Your task to perform on an android device: check out phone information Image 0: 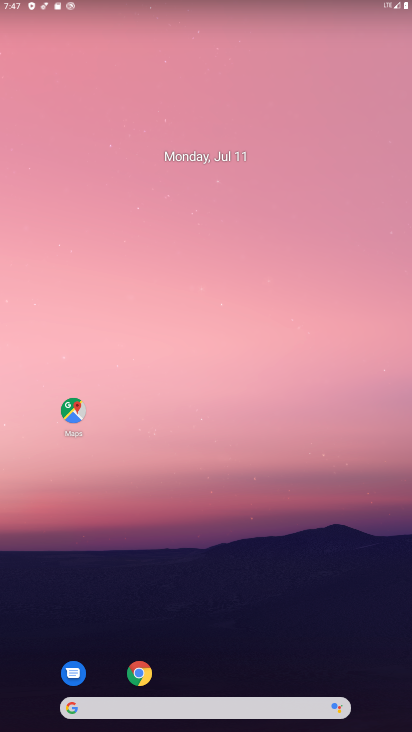
Step 0: drag from (217, 701) to (202, 420)
Your task to perform on an android device: check out phone information Image 1: 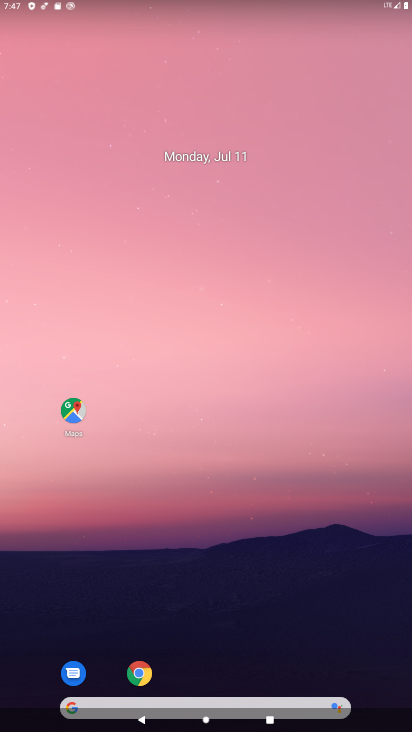
Step 1: drag from (214, 682) to (202, 336)
Your task to perform on an android device: check out phone information Image 2: 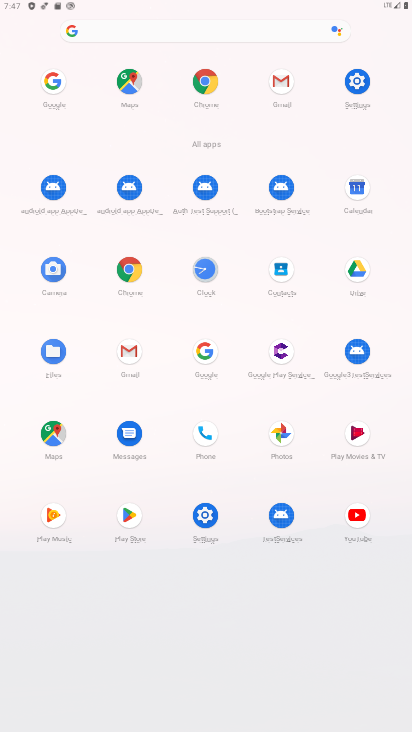
Step 2: click (208, 433)
Your task to perform on an android device: check out phone information Image 3: 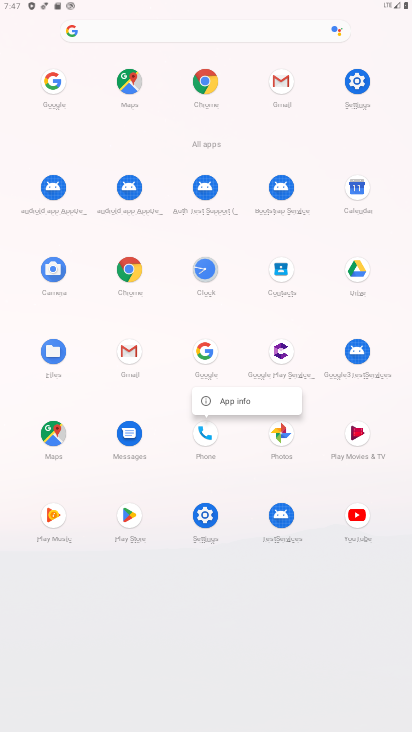
Step 3: click (203, 400)
Your task to perform on an android device: check out phone information Image 4: 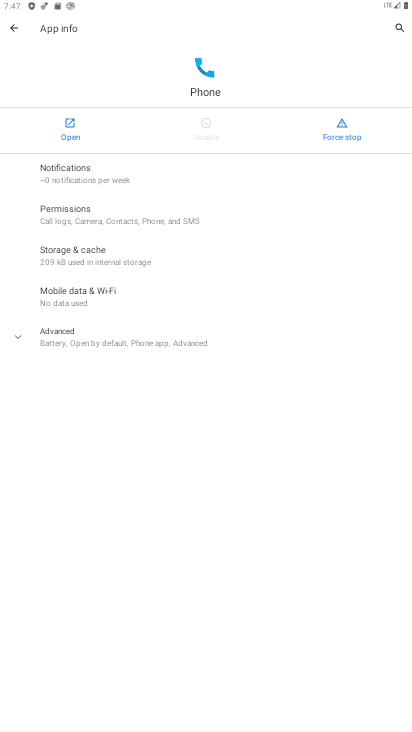
Step 4: click (149, 347)
Your task to perform on an android device: check out phone information Image 5: 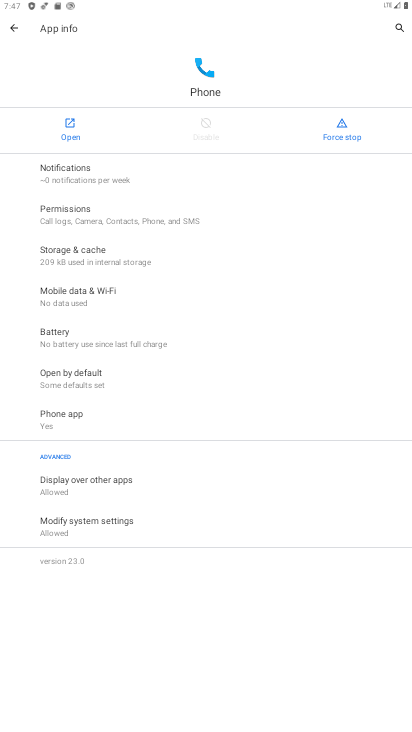
Step 5: task complete